Your task to perform on an android device: Search for seafood restaurants on Google Maps Image 0: 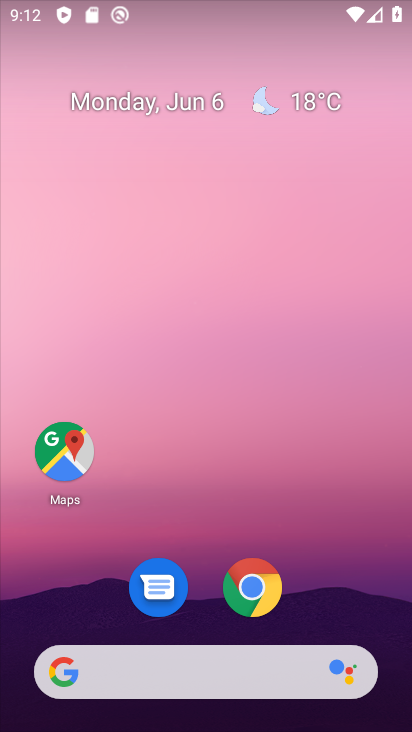
Step 0: click (59, 449)
Your task to perform on an android device: Search for seafood restaurants on Google Maps Image 1: 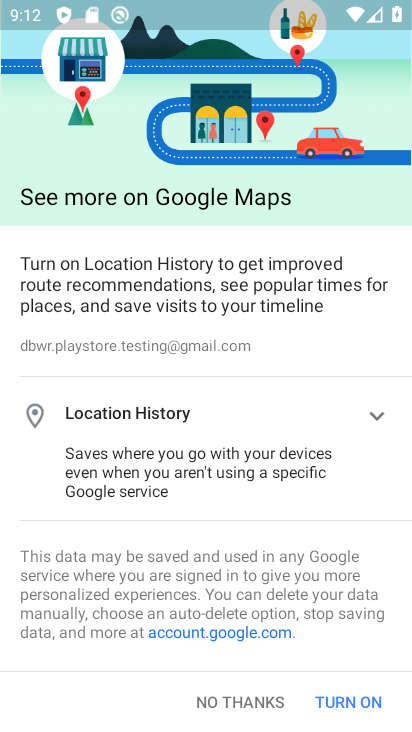
Step 1: click (198, 717)
Your task to perform on an android device: Search for seafood restaurants on Google Maps Image 2: 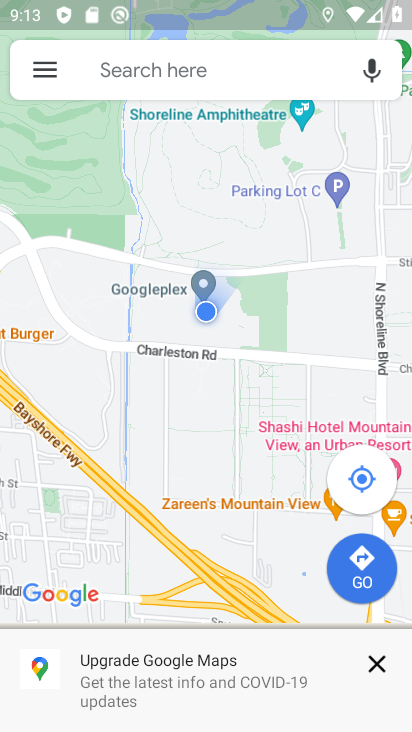
Step 2: click (126, 62)
Your task to perform on an android device: Search for seafood restaurants on Google Maps Image 3: 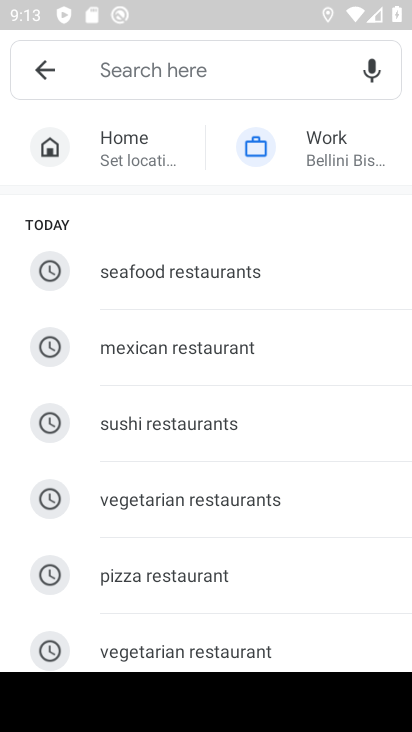
Step 3: click (195, 270)
Your task to perform on an android device: Search for seafood restaurants on Google Maps Image 4: 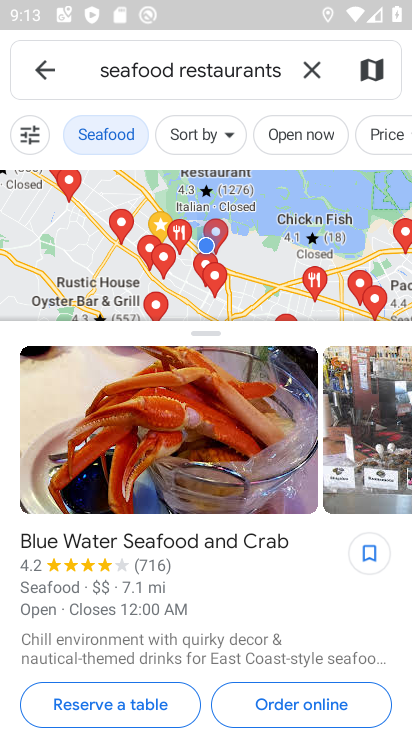
Step 4: task complete